Your task to perform on an android device: Open the calendar and show me this week's events Image 0: 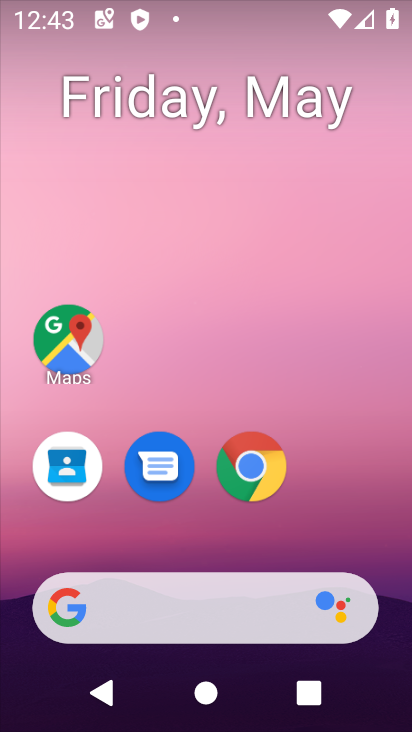
Step 0: click (155, 602)
Your task to perform on an android device: Open the calendar and show me this week's events Image 1: 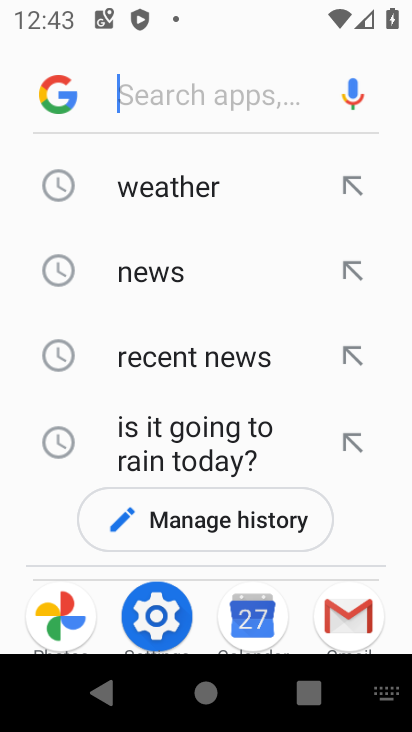
Step 1: click (138, 197)
Your task to perform on an android device: Open the calendar and show me this week's events Image 2: 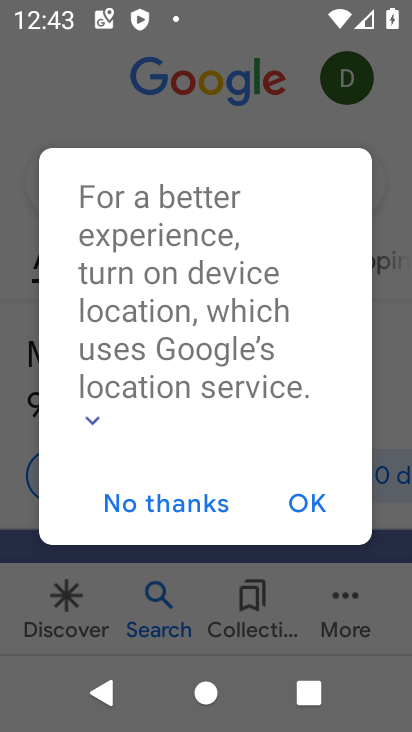
Step 2: click (197, 498)
Your task to perform on an android device: Open the calendar and show me this week's events Image 3: 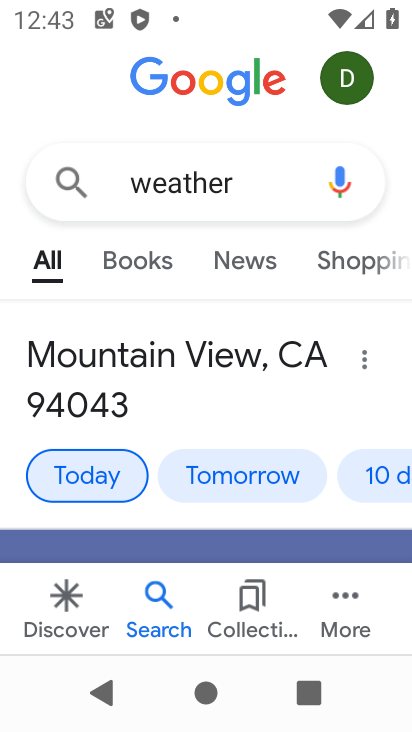
Step 3: drag from (200, 504) to (240, 91)
Your task to perform on an android device: Open the calendar and show me this week's events Image 4: 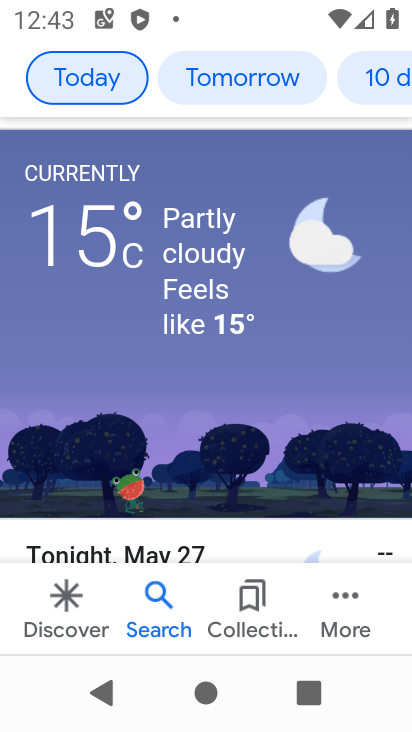
Step 4: drag from (267, 470) to (293, 99)
Your task to perform on an android device: Open the calendar and show me this week's events Image 5: 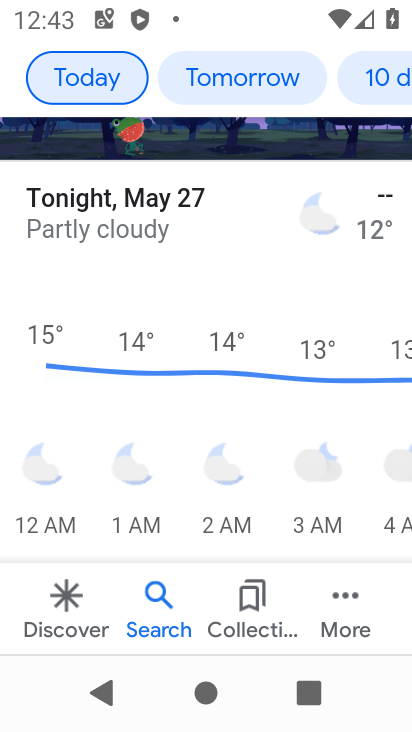
Step 5: press home button
Your task to perform on an android device: Open the calendar and show me this week's events Image 6: 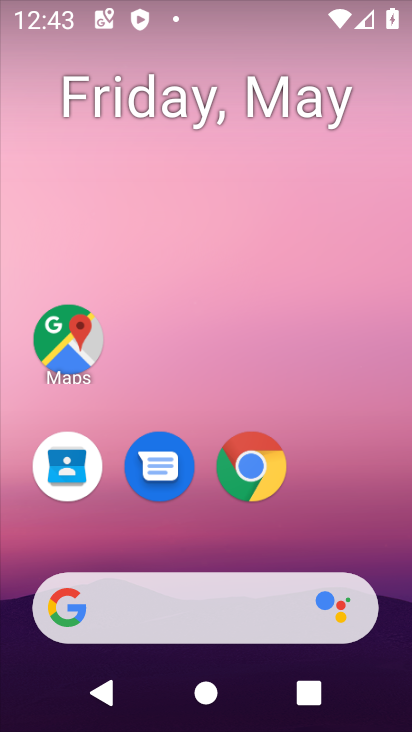
Step 6: drag from (301, 540) to (145, 0)
Your task to perform on an android device: Open the calendar and show me this week's events Image 7: 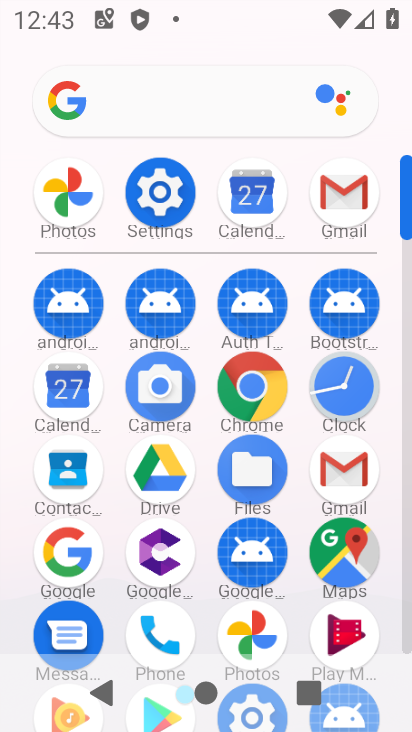
Step 7: click (76, 429)
Your task to perform on an android device: Open the calendar and show me this week's events Image 8: 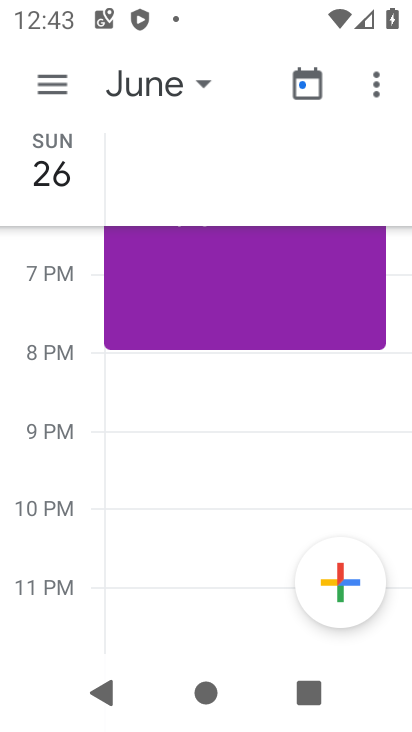
Step 8: click (48, 88)
Your task to perform on an android device: Open the calendar and show me this week's events Image 9: 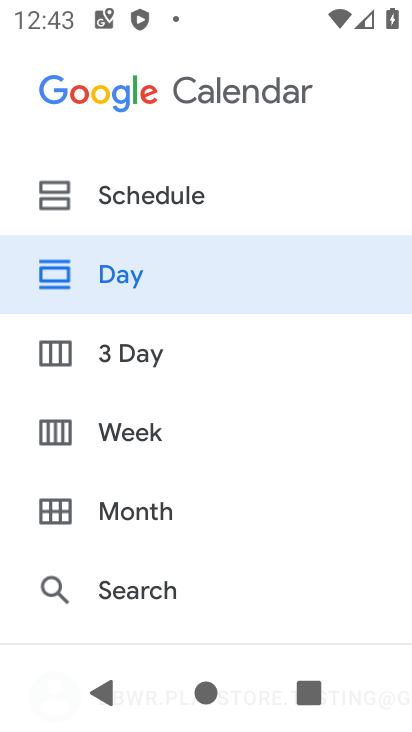
Step 9: click (136, 430)
Your task to perform on an android device: Open the calendar and show me this week's events Image 10: 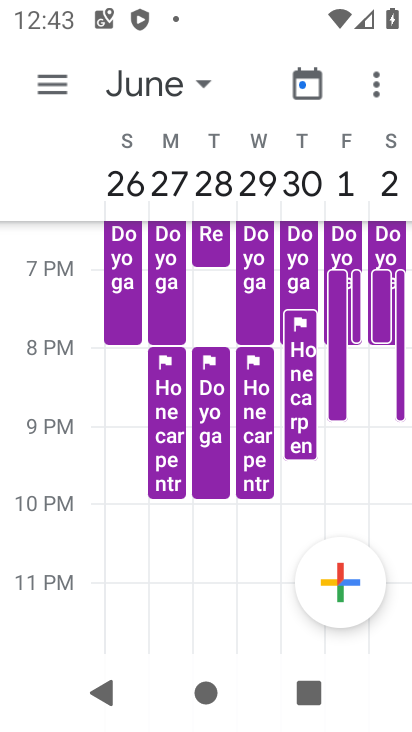
Step 10: click (151, 81)
Your task to perform on an android device: Open the calendar and show me this week's events Image 11: 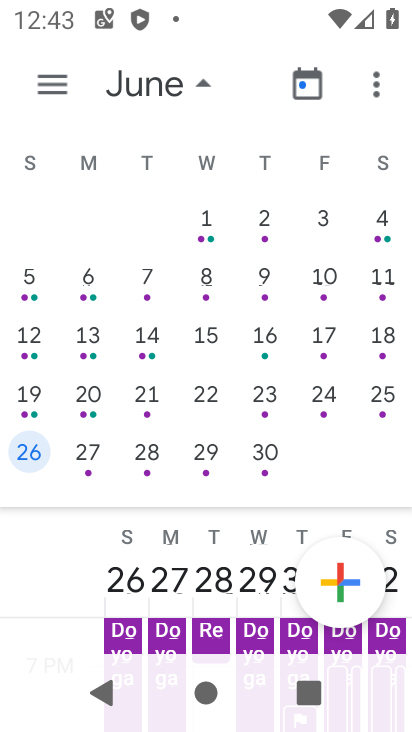
Step 11: drag from (101, 328) to (384, 378)
Your task to perform on an android device: Open the calendar and show me this week's events Image 12: 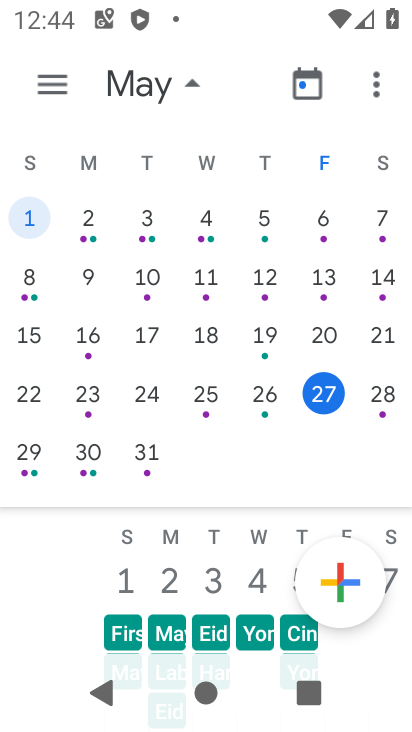
Step 12: click (31, 390)
Your task to perform on an android device: Open the calendar and show me this week's events Image 13: 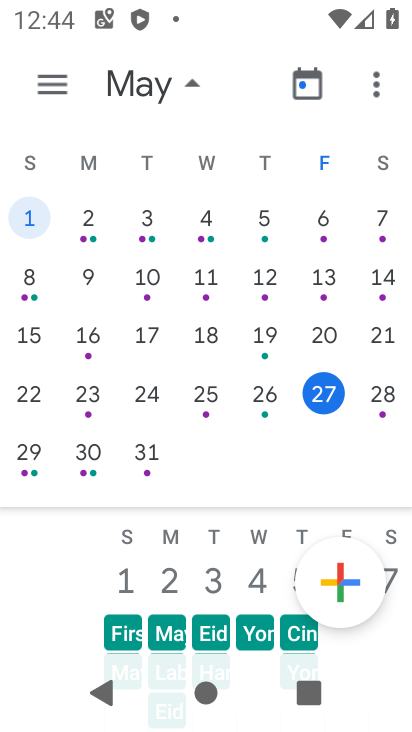
Step 13: click (39, 392)
Your task to perform on an android device: Open the calendar and show me this week's events Image 14: 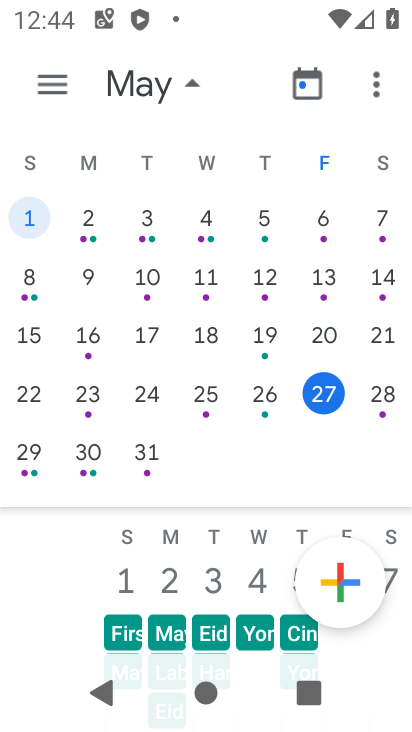
Step 14: click (39, 392)
Your task to perform on an android device: Open the calendar and show me this week's events Image 15: 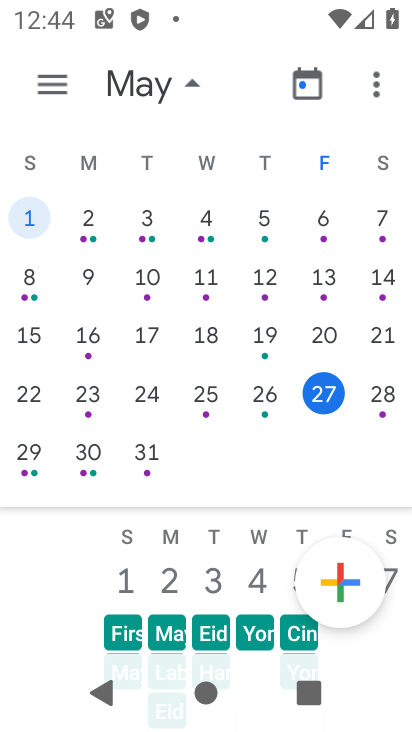
Step 15: click (41, 397)
Your task to perform on an android device: Open the calendar and show me this week's events Image 16: 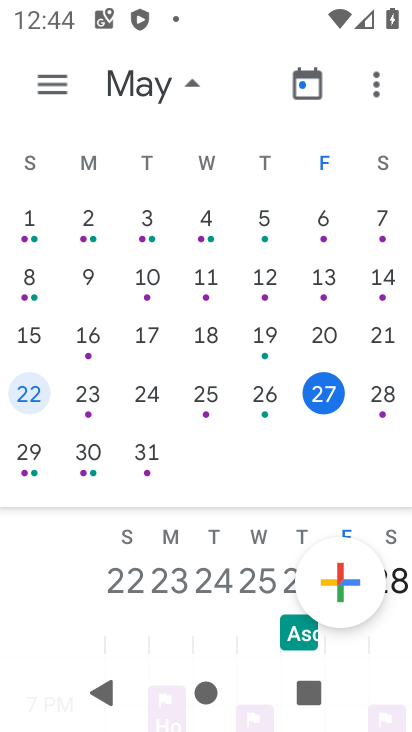
Step 16: task complete